Your task to perform on an android device: open app "Microsoft Authenticator" (install if not already installed) and enter user name: "Cornell@yahoo.com" and password: "bothersome" Image 0: 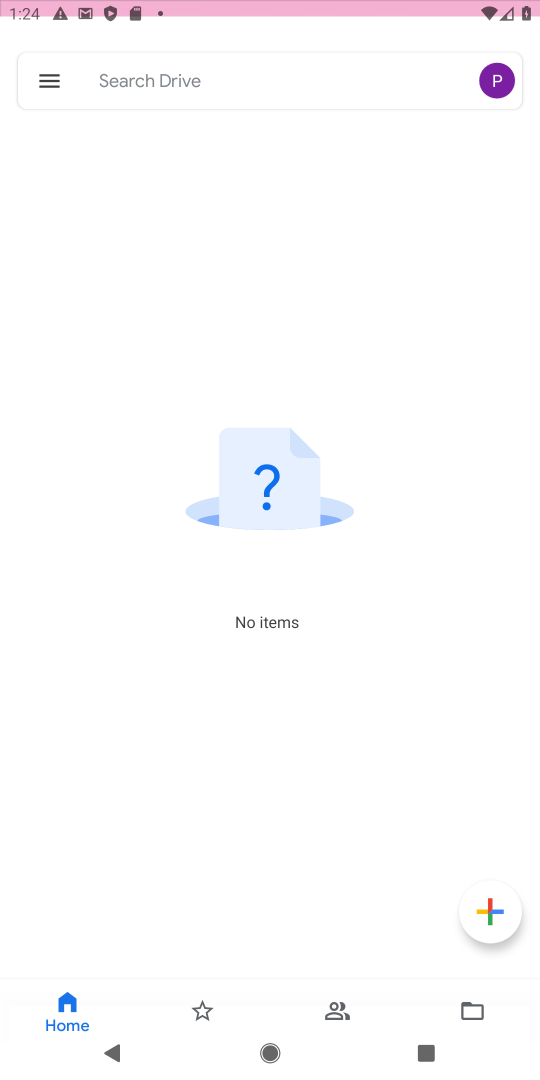
Step 0: press home button
Your task to perform on an android device: open app "Microsoft Authenticator" (install if not already installed) and enter user name: "Cornell@yahoo.com" and password: "bothersome" Image 1: 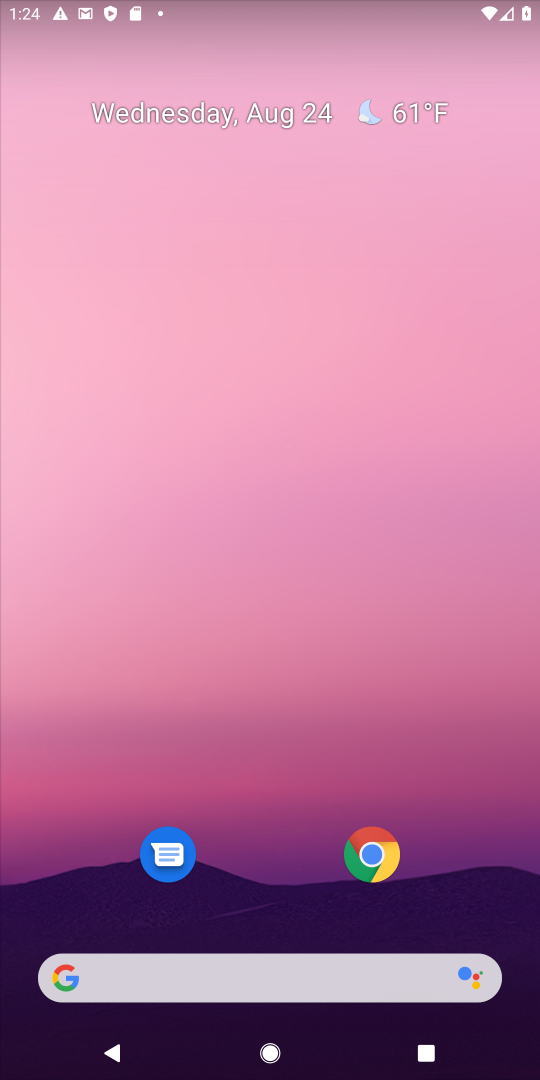
Step 1: drag from (447, 838) to (466, 121)
Your task to perform on an android device: open app "Microsoft Authenticator" (install if not already installed) and enter user name: "Cornell@yahoo.com" and password: "bothersome" Image 2: 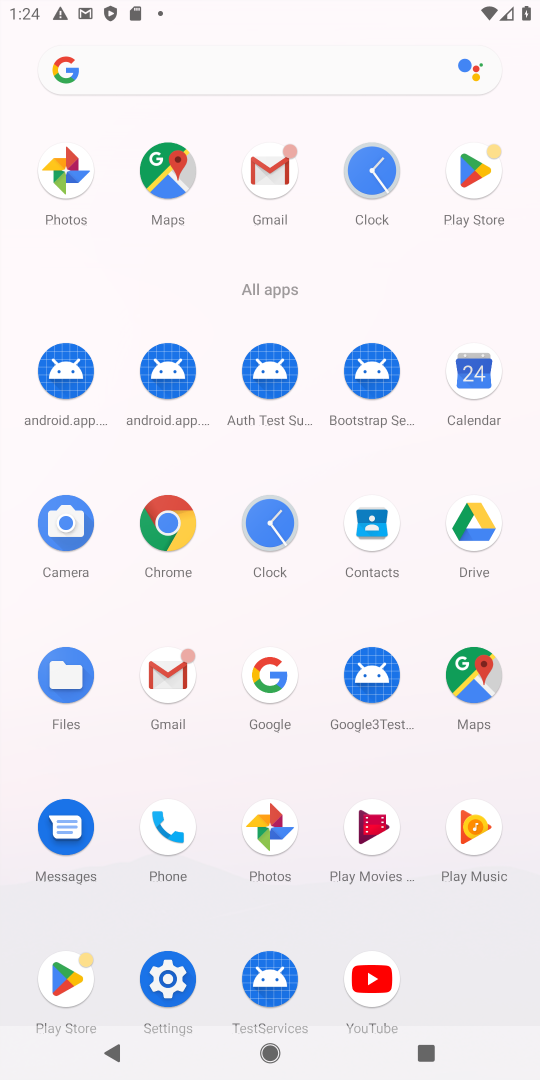
Step 2: click (478, 180)
Your task to perform on an android device: open app "Microsoft Authenticator" (install if not already installed) and enter user name: "Cornell@yahoo.com" and password: "bothersome" Image 3: 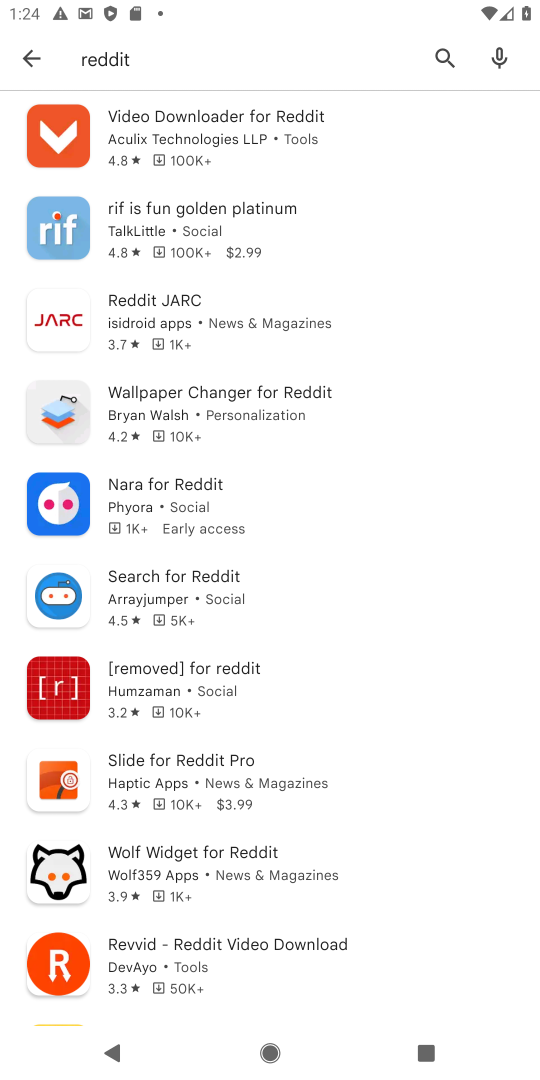
Step 3: press back button
Your task to perform on an android device: open app "Microsoft Authenticator" (install if not already installed) and enter user name: "Cornell@yahoo.com" and password: "bothersome" Image 4: 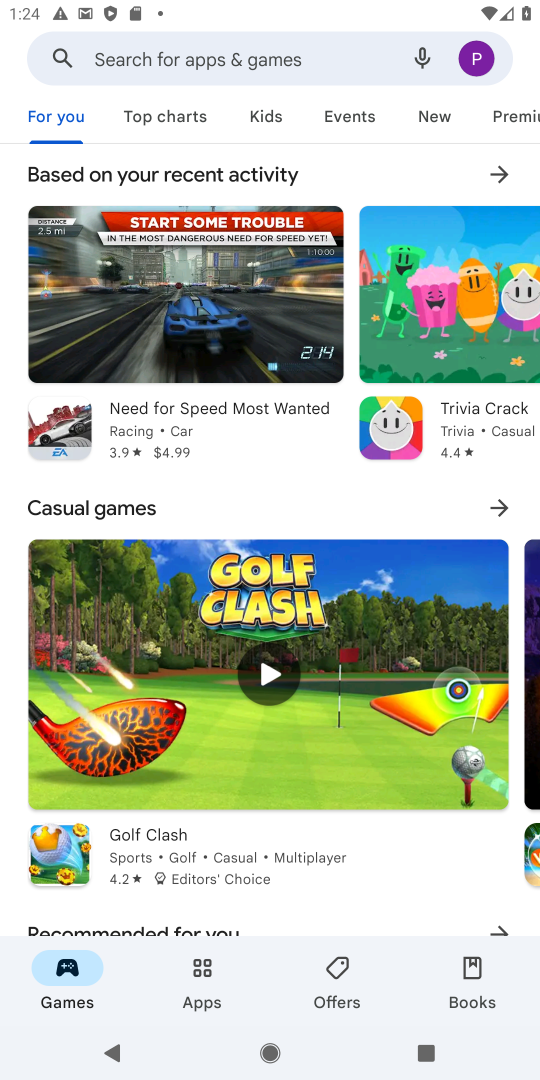
Step 4: click (204, 59)
Your task to perform on an android device: open app "Microsoft Authenticator" (install if not already installed) and enter user name: "Cornell@yahoo.com" and password: "bothersome" Image 5: 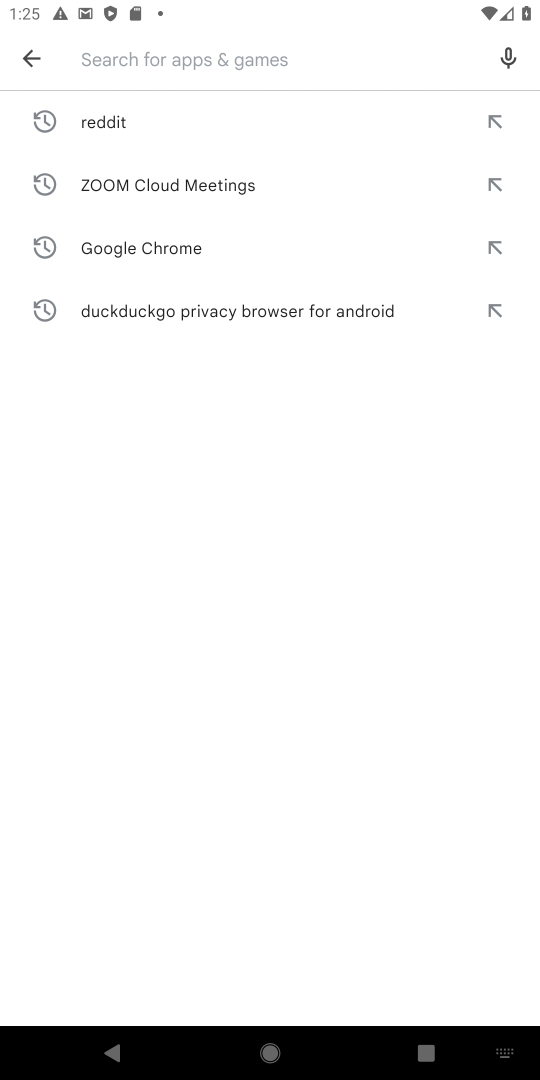
Step 5: type "Microsoft Authenticator"
Your task to perform on an android device: open app "Microsoft Authenticator" (install if not already installed) and enter user name: "Cornell@yahoo.com" and password: "bothersome" Image 6: 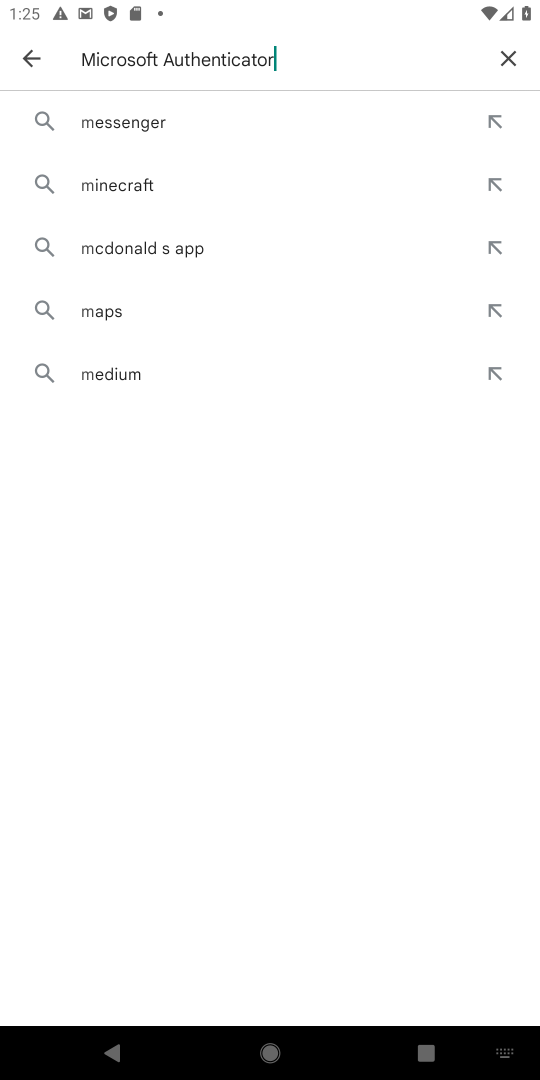
Step 6: press enter
Your task to perform on an android device: open app "Microsoft Authenticator" (install if not already installed) and enter user name: "Cornell@yahoo.com" and password: "bothersome" Image 7: 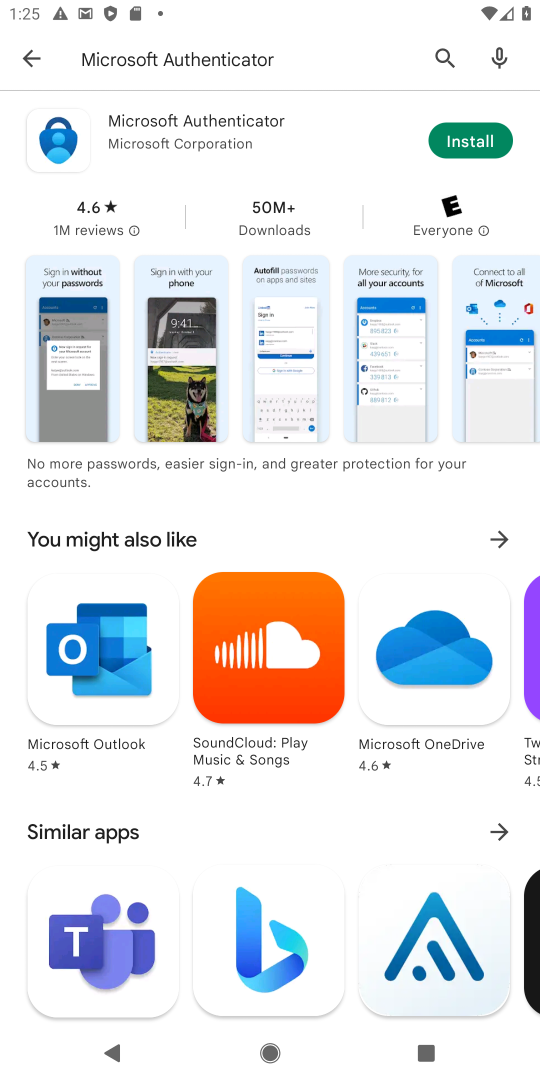
Step 7: click (459, 138)
Your task to perform on an android device: open app "Microsoft Authenticator" (install if not already installed) and enter user name: "Cornell@yahoo.com" and password: "bothersome" Image 8: 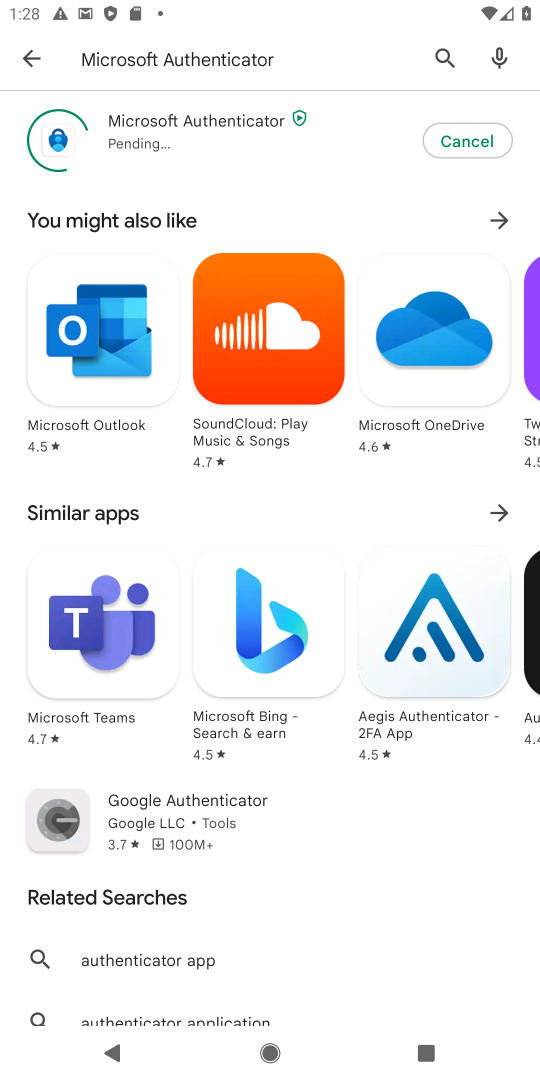
Step 8: task complete